Your task to perform on an android device: install app "Gmail" Image 0: 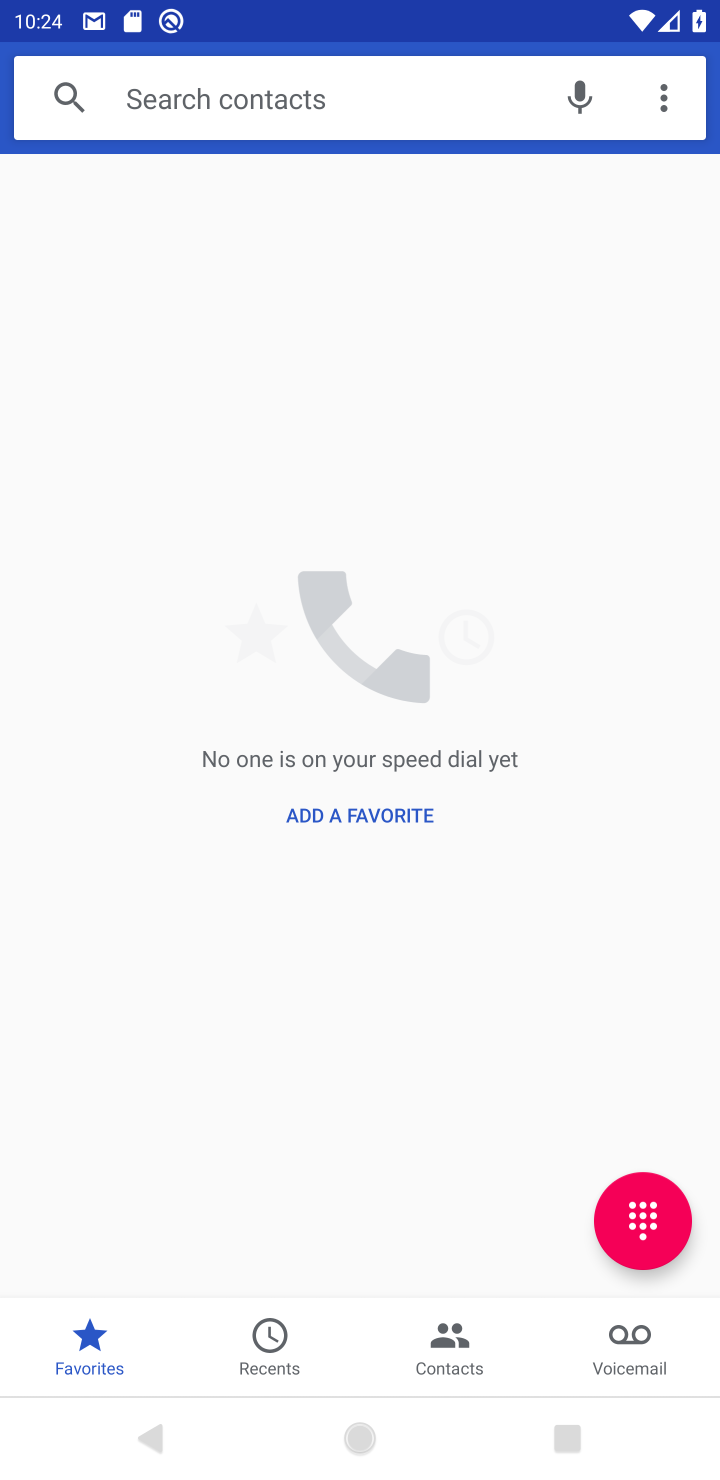
Step 0: press home button
Your task to perform on an android device: install app "Gmail" Image 1: 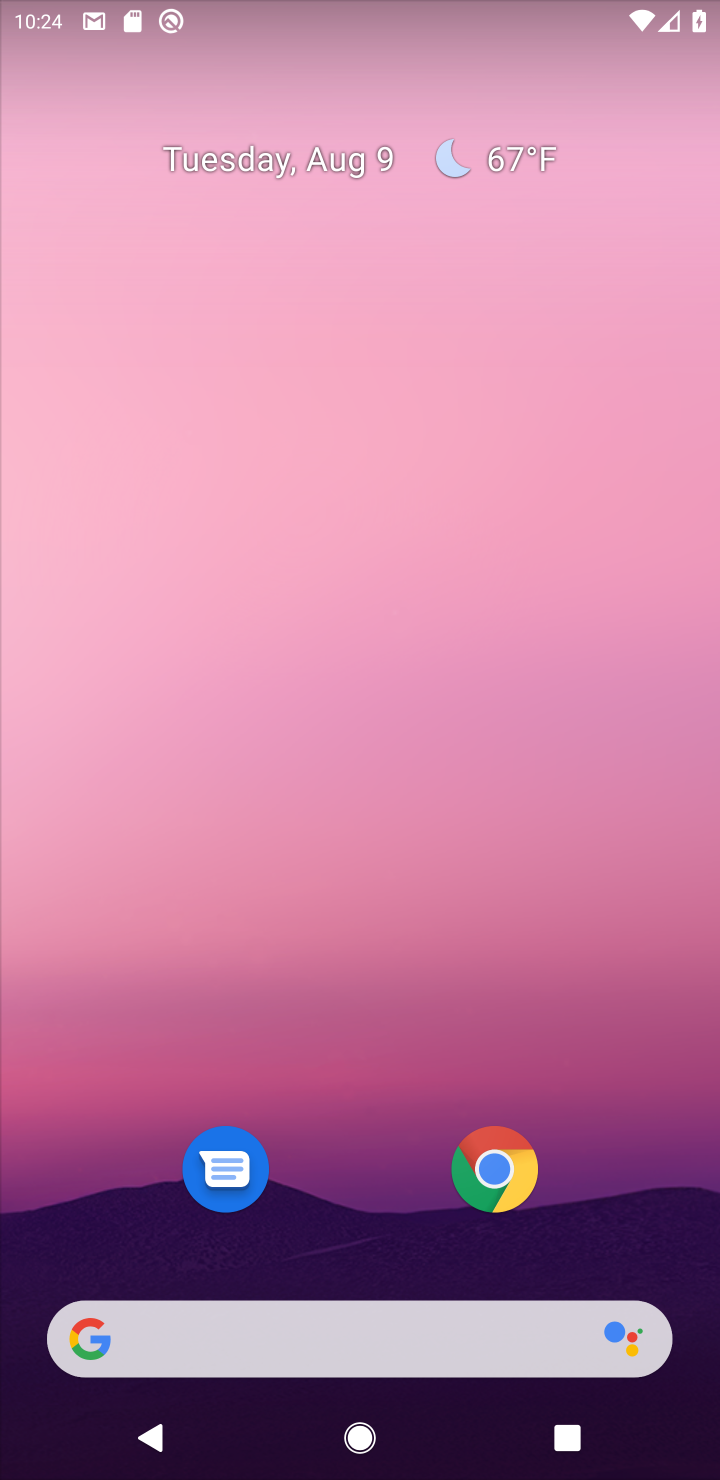
Step 1: drag from (617, 1236) to (596, 132)
Your task to perform on an android device: install app "Gmail" Image 2: 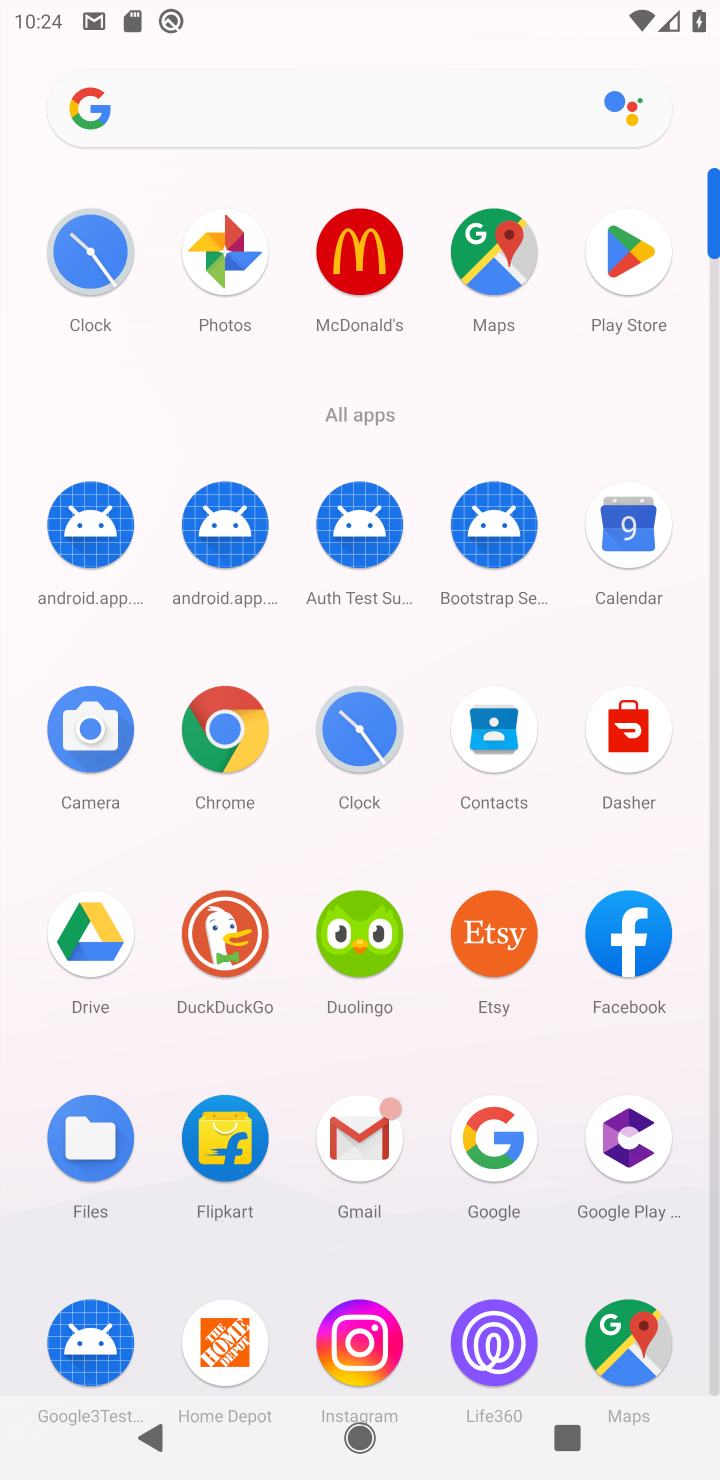
Step 2: click (622, 256)
Your task to perform on an android device: install app "Gmail" Image 3: 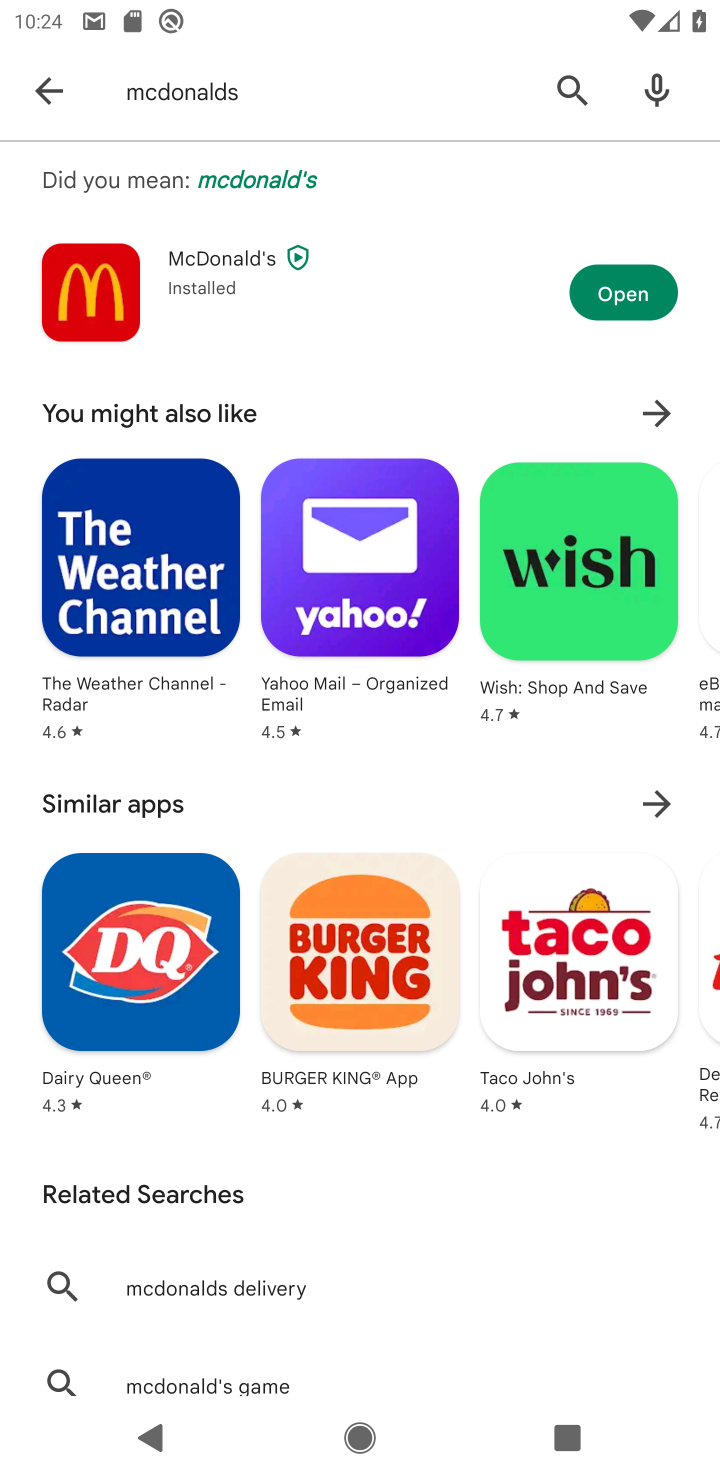
Step 3: click (567, 86)
Your task to perform on an android device: install app "Gmail" Image 4: 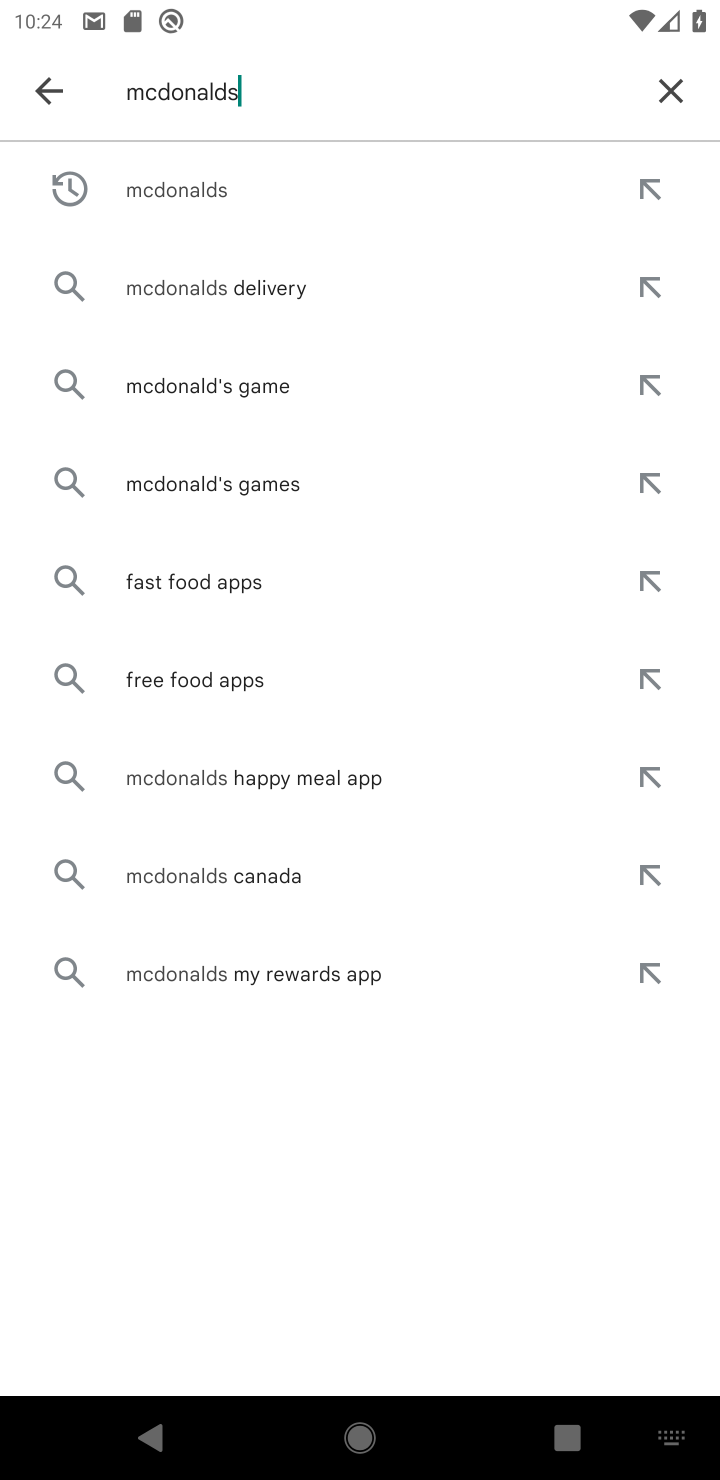
Step 4: click (656, 94)
Your task to perform on an android device: install app "Gmail" Image 5: 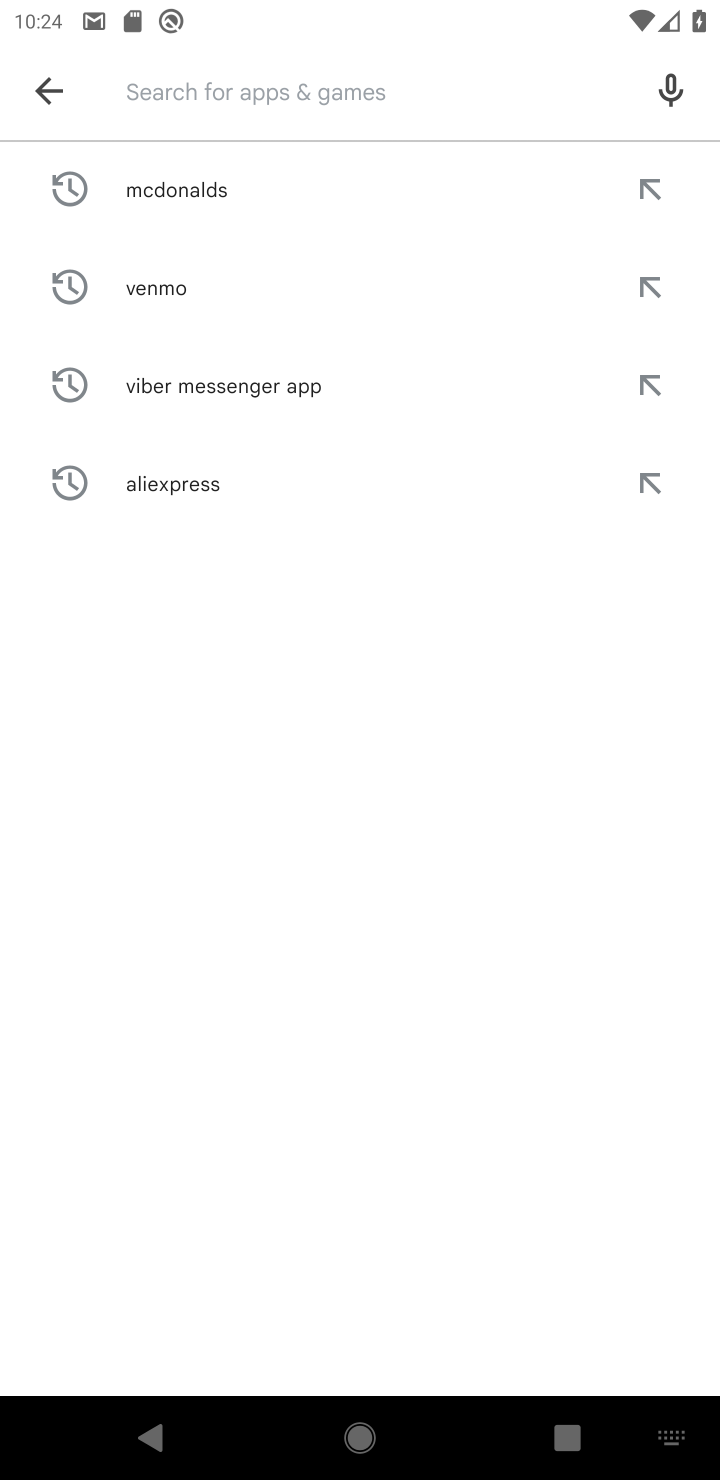
Step 5: type "gmail"
Your task to perform on an android device: install app "Gmail" Image 6: 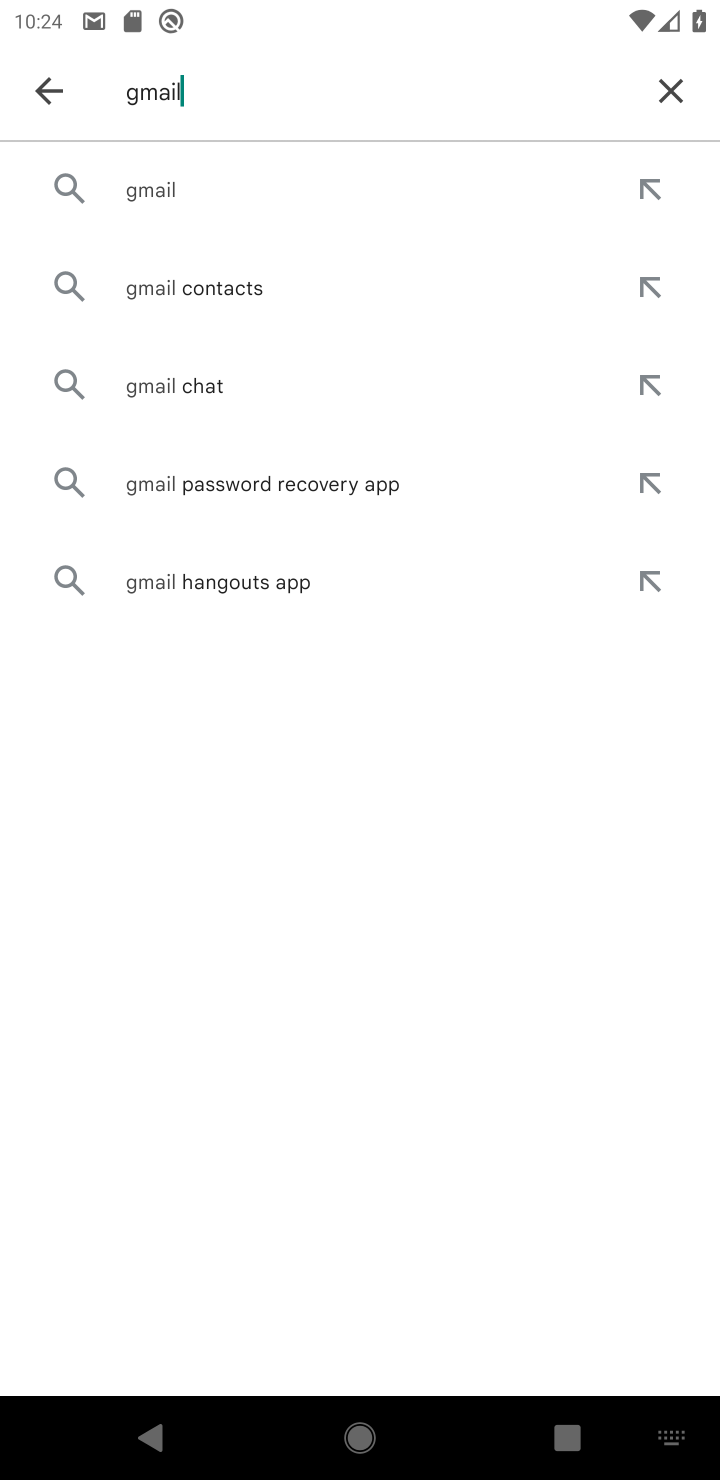
Step 6: click (178, 174)
Your task to perform on an android device: install app "Gmail" Image 7: 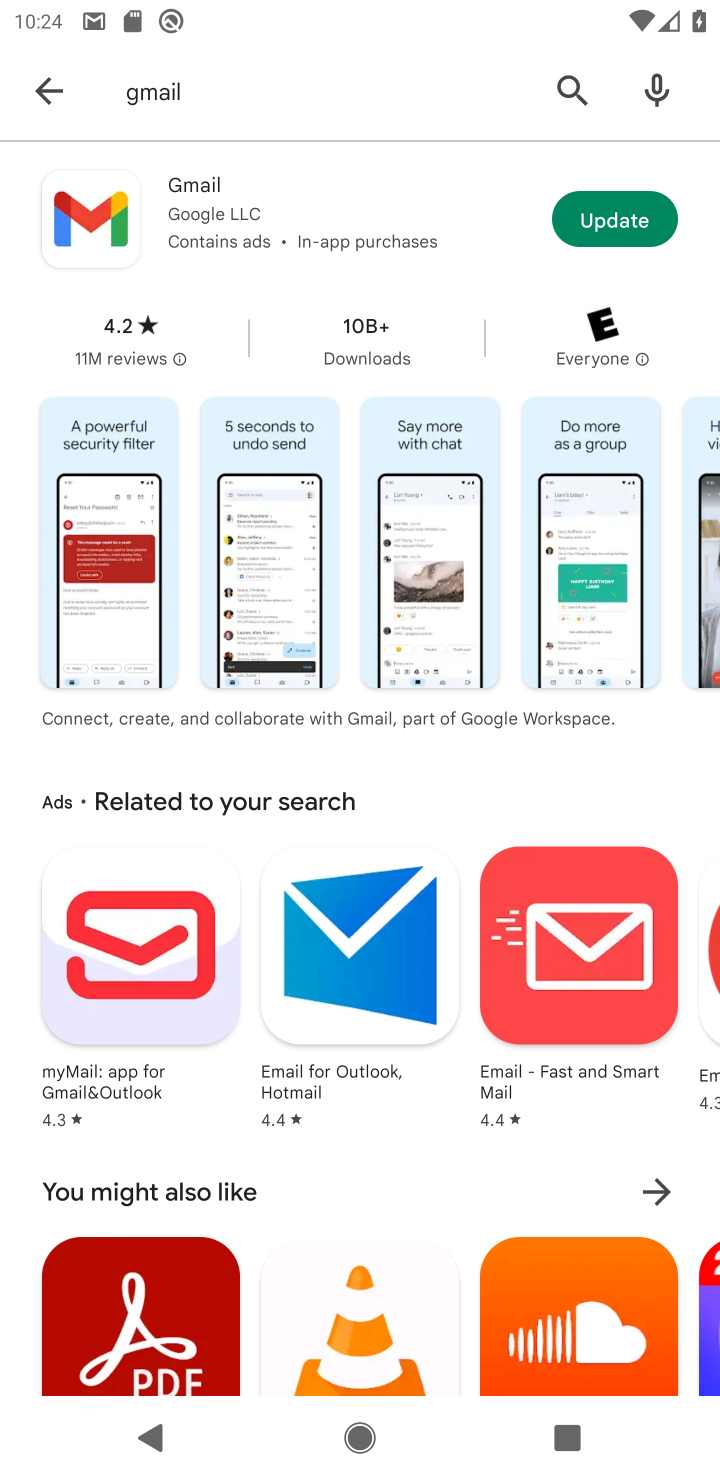
Step 7: task complete